Your task to perform on an android device: manage bookmarks in the chrome app Image 0: 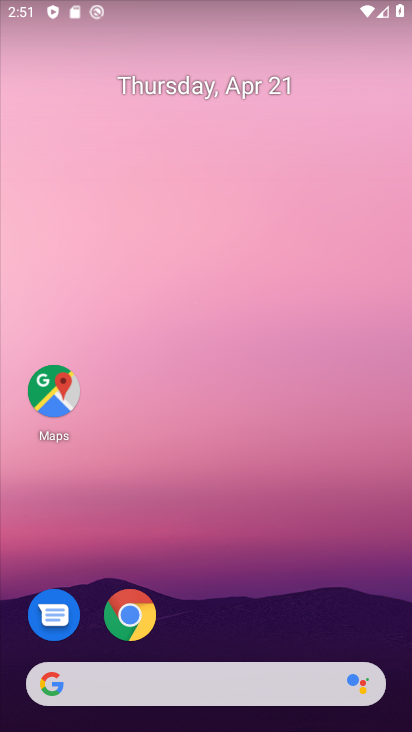
Step 0: drag from (310, 519) to (307, 138)
Your task to perform on an android device: manage bookmarks in the chrome app Image 1: 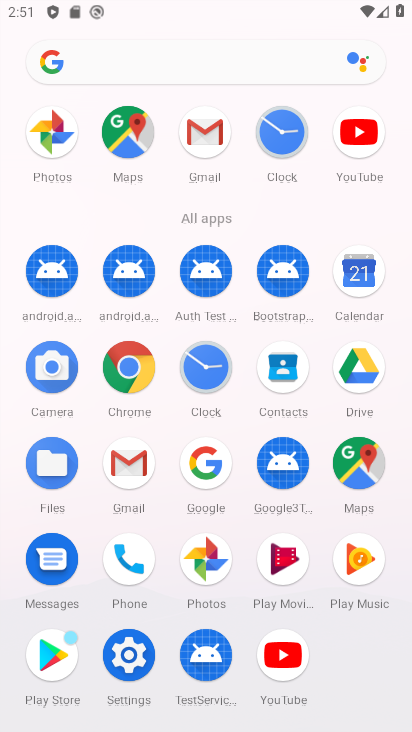
Step 1: click (114, 370)
Your task to perform on an android device: manage bookmarks in the chrome app Image 2: 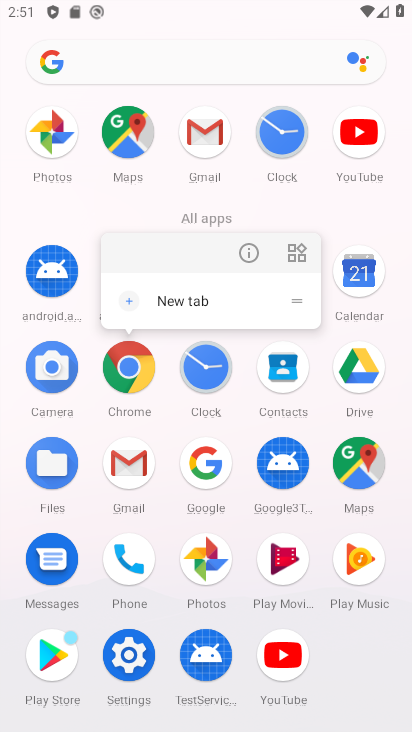
Step 2: click (118, 377)
Your task to perform on an android device: manage bookmarks in the chrome app Image 3: 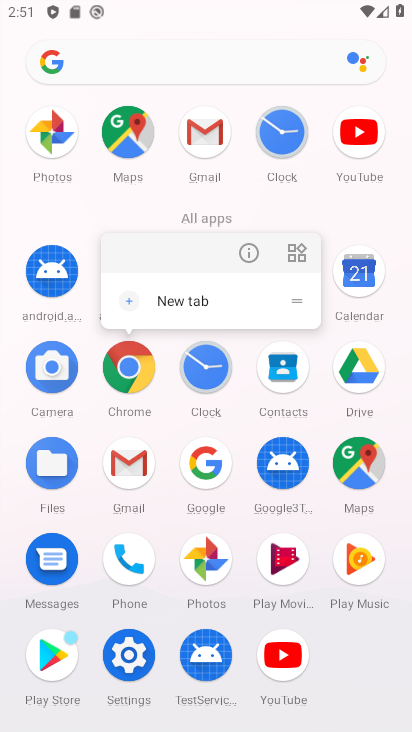
Step 3: click (130, 380)
Your task to perform on an android device: manage bookmarks in the chrome app Image 4: 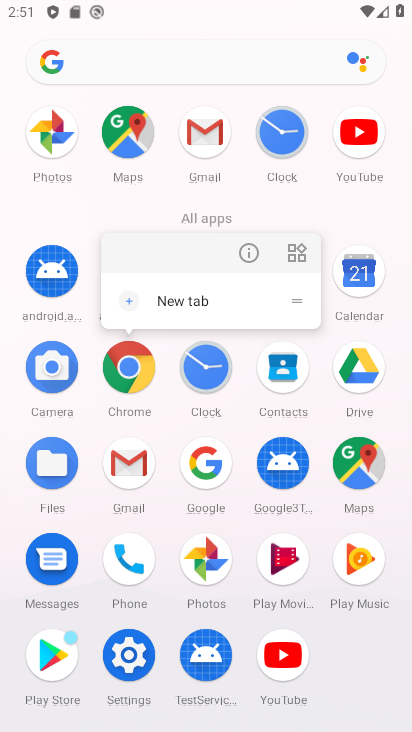
Step 4: click (132, 383)
Your task to perform on an android device: manage bookmarks in the chrome app Image 5: 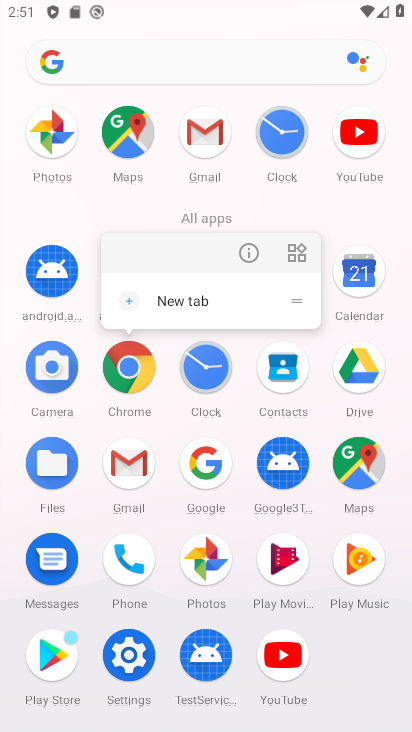
Step 5: click (134, 385)
Your task to perform on an android device: manage bookmarks in the chrome app Image 6: 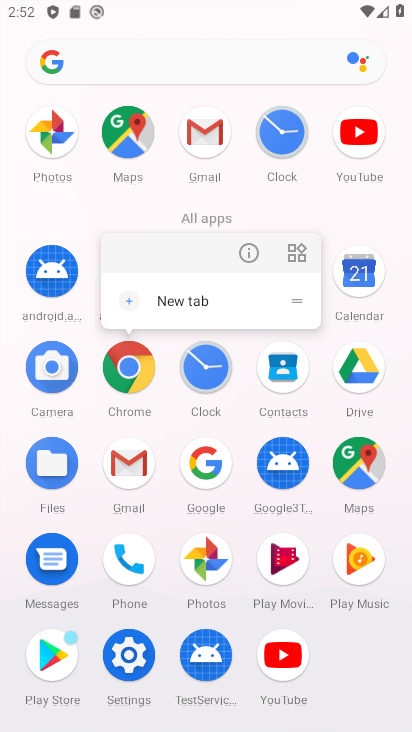
Step 6: drag from (314, 391) to (308, 627)
Your task to perform on an android device: manage bookmarks in the chrome app Image 7: 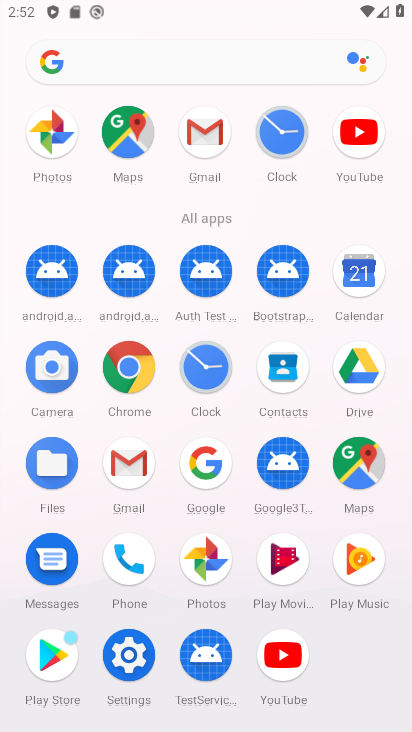
Step 7: click (141, 386)
Your task to perform on an android device: manage bookmarks in the chrome app Image 8: 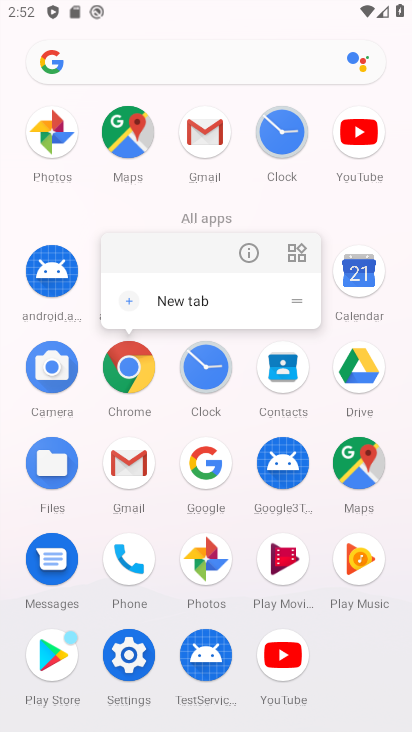
Step 8: click (141, 386)
Your task to perform on an android device: manage bookmarks in the chrome app Image 9: 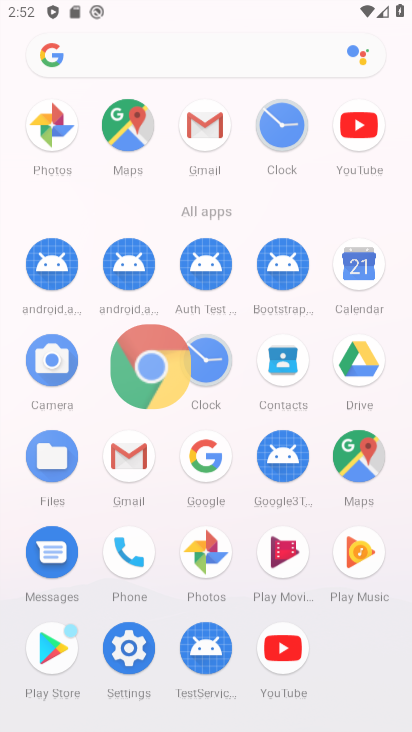
Step 9: click (134, 386)
Your task to perform on an android device: manage bookmarks in the chrome app Image 10: 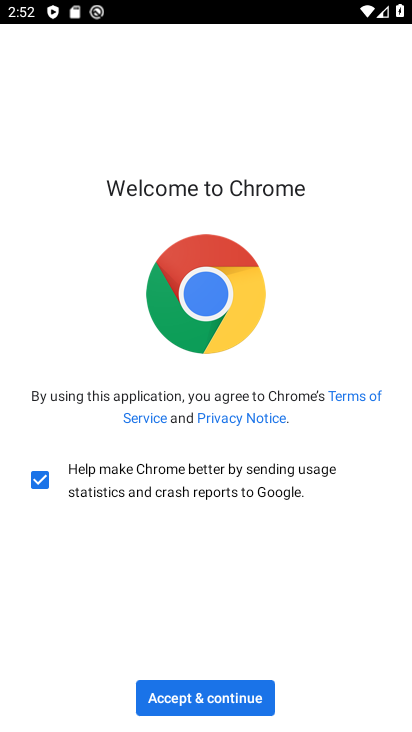
Step 10: click (171, 697)
Your task to perform on an android device: manage bookmarks in the chrome app Image 11: 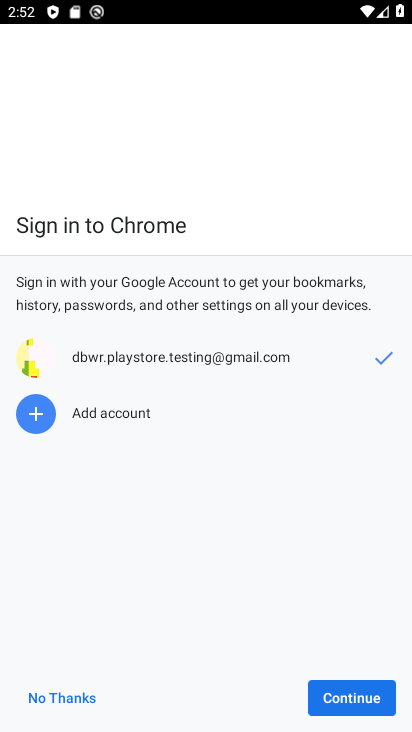
Step 11: click (344, 708)
Your task to perform on an android device: manage bookmarks in the chrome app Image 12: 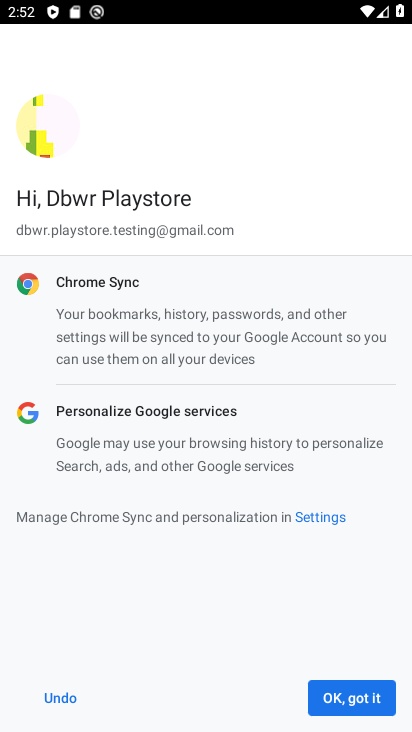
Step 12: click (345, 698)
Your task to perform on an android device: manage bookmarks in the chrome app Image 13: 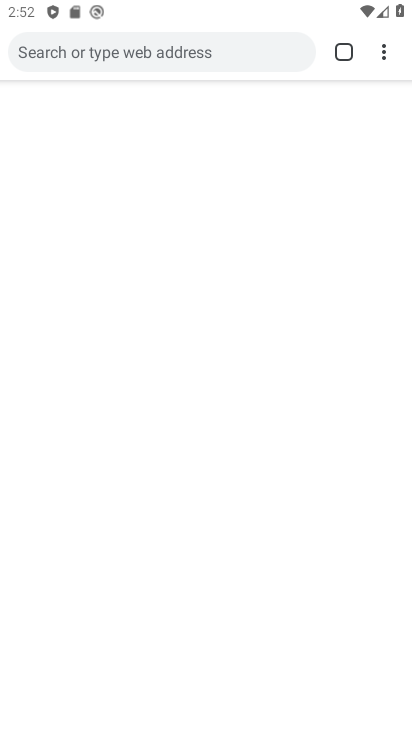
Step 13: click (345, 698)
Your task to perform on an android device: manage bookmarks in the chrome app Image 14: 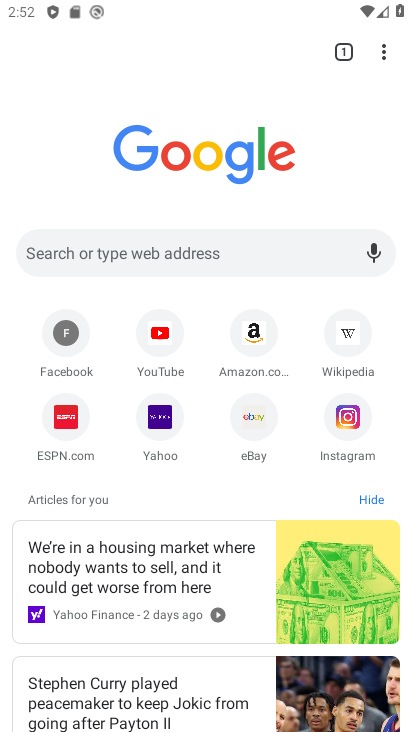
Step 14: click (384, 61)
Your task to perform on an android device: manage bookmarks in the chrome app Image 15: 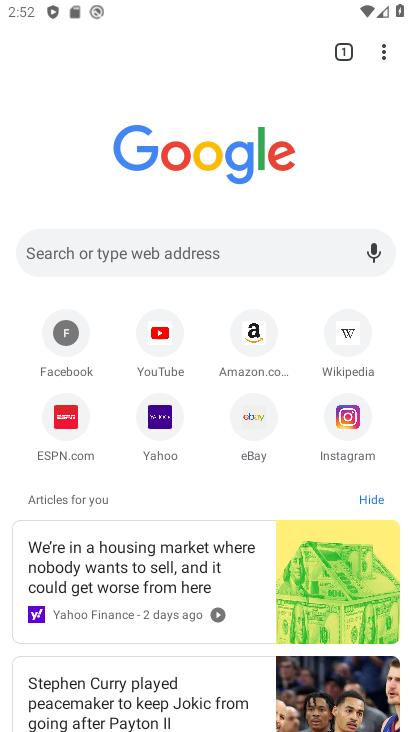
Step 15: task complete